Your task to perform on an android device: Set the phone to "Do not disturb". Image 0: 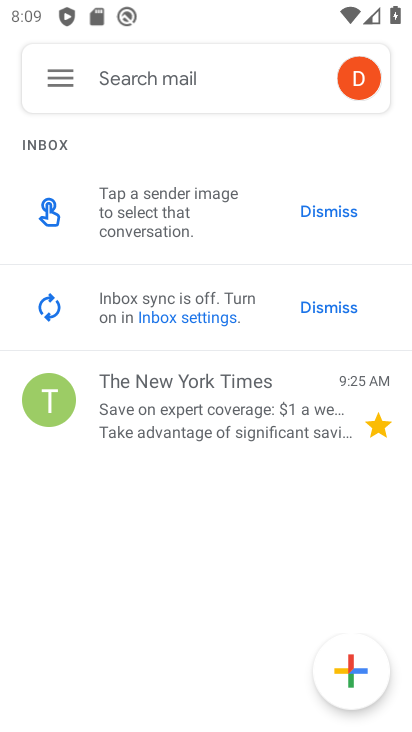
Step 0: drag from (267, 10) to (370, 702)
Your task to perform on an android device: Set the phone to "Do not disturb". Image 1: 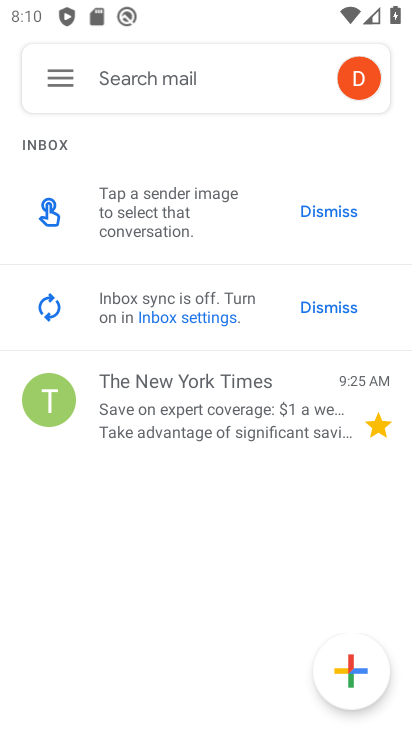
Step 1: press home button
Your task to perform on an android device: Set the phone to "Do not disturb". Image 2: 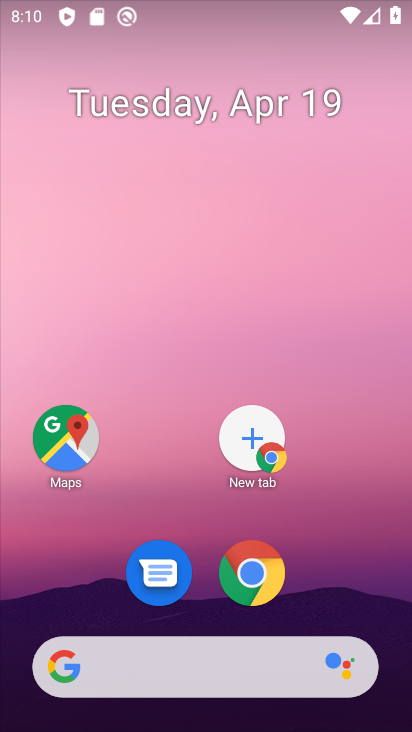
Step 2: drag from (272, 8) to (280, 473)
Your task to perform on an android device: Set the phone to "Do not disturb". Image 3: 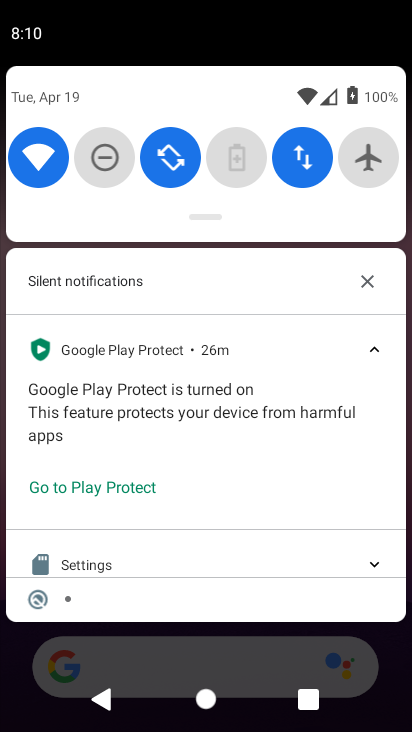
Step 3: click (116, 173)
Your task to perform on an android device: Set the phone to "Do not disturb". Image 4: 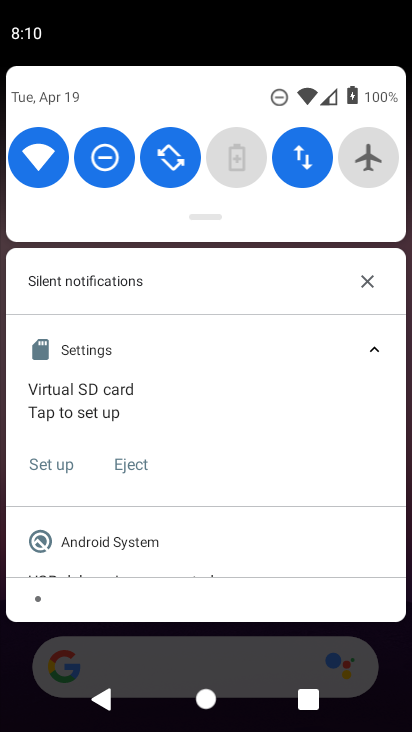
Step 4: task complete